Your task to perform on an android device: check battery use Image 0: 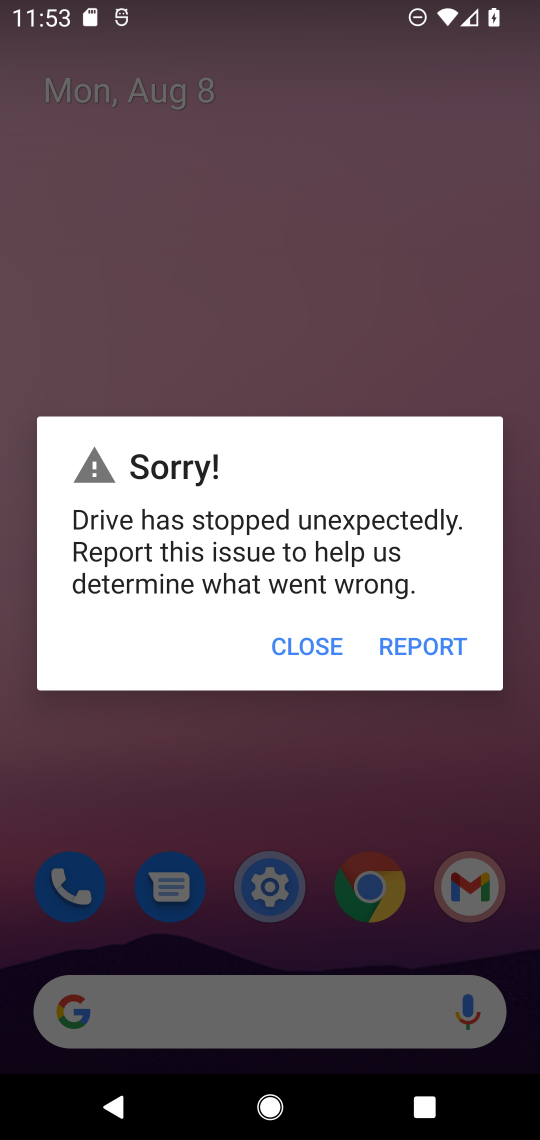
Step 0: press home button
Your task to perform on an android device: check battery use Image 1: 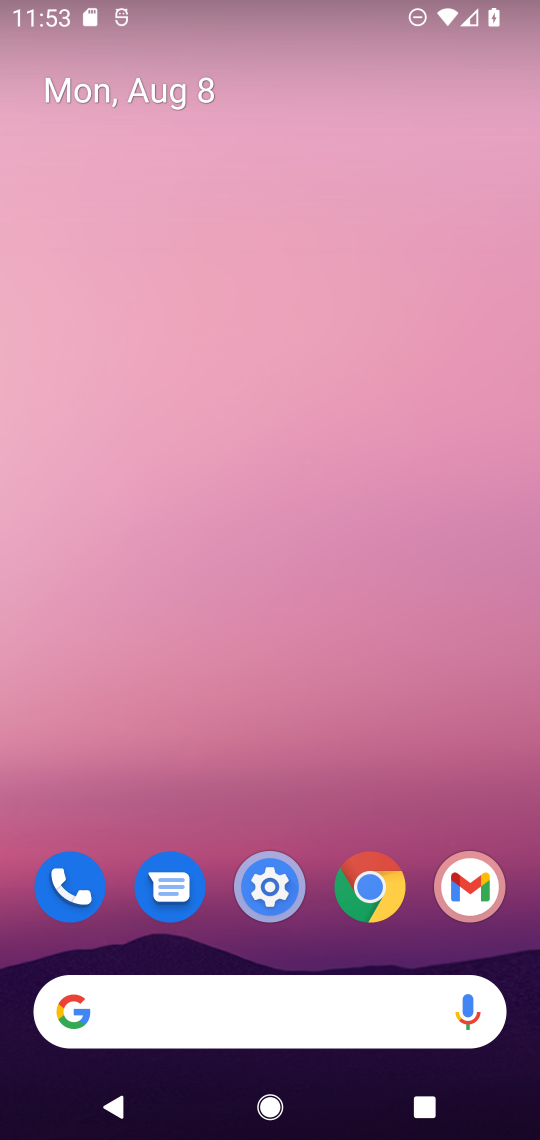
Step 1: click (267, 891)
Your task to perform on an android device: check battery use Image 2: 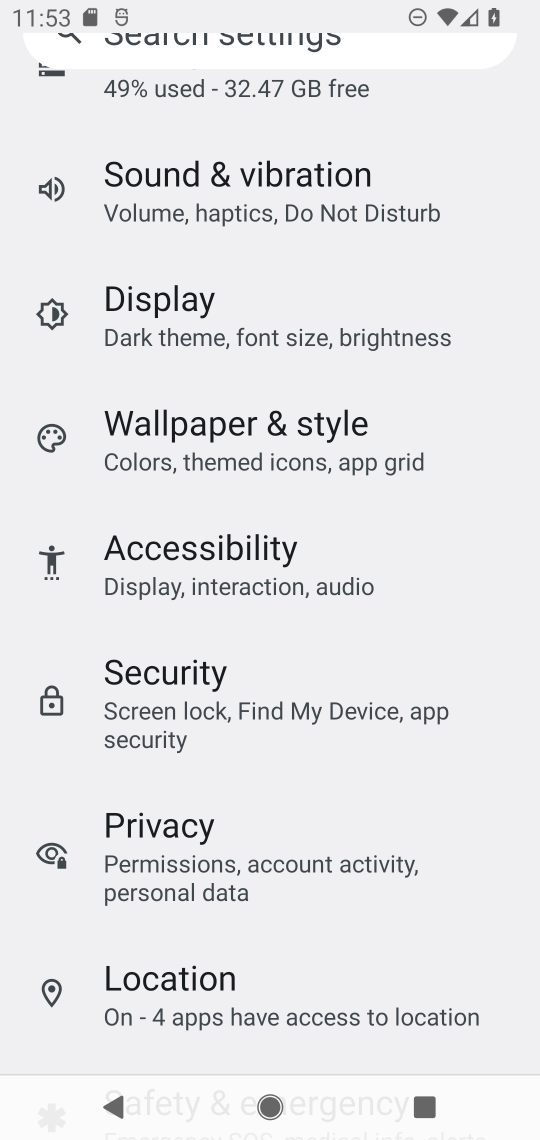
Step 2: drag from (238, 257) to (349, 876)
Your task to perform on an android device: check battery use Image 3: 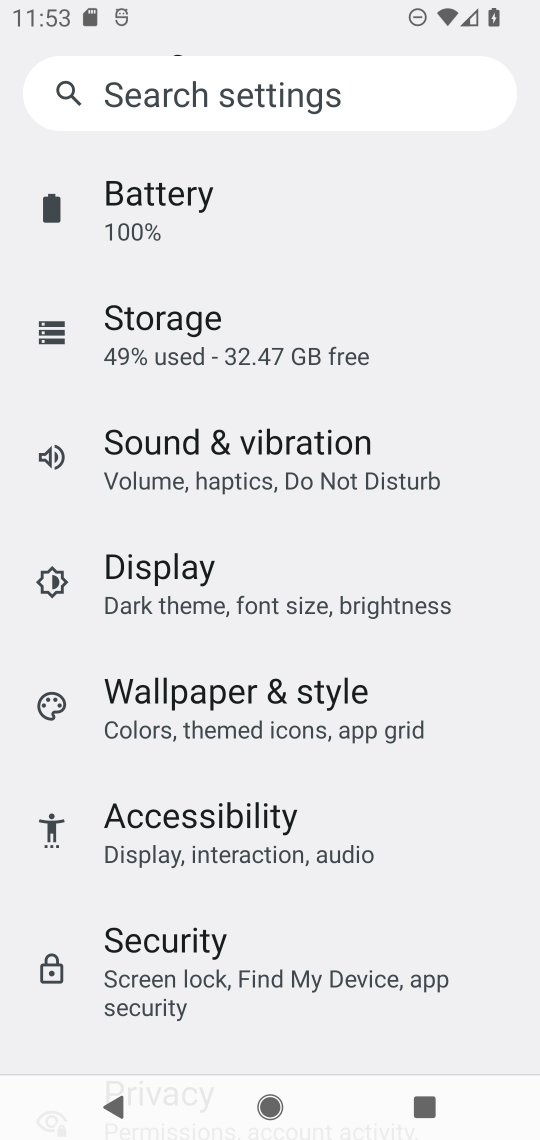
Step 3: click (175, 188)
Your task to perform on an android device: check battery use Image 4: 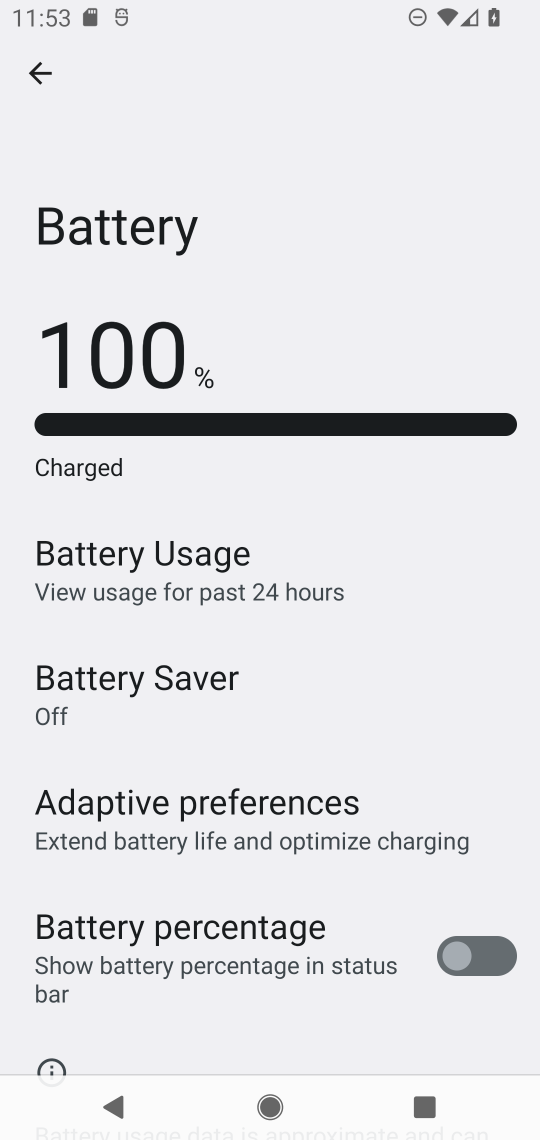
Step 4: task complete